Your task to perform on an android device: Open calendar and show me the first week of next month Image 0: 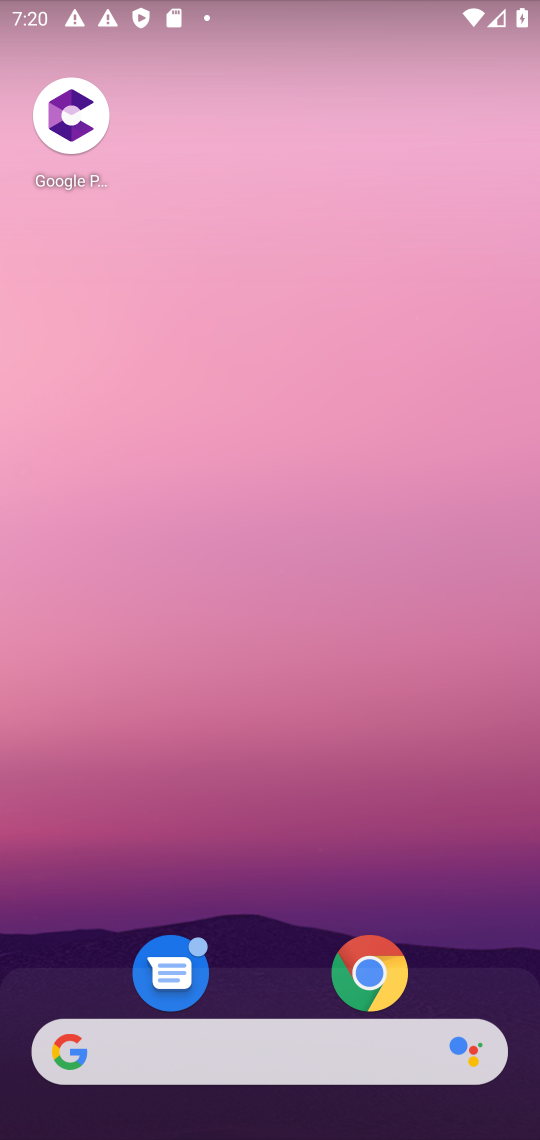
Step 0: drag from (356, 758) to (526, 210)
Your task to perform on an android device: Open calendar and show me the first week of next month Image 1: 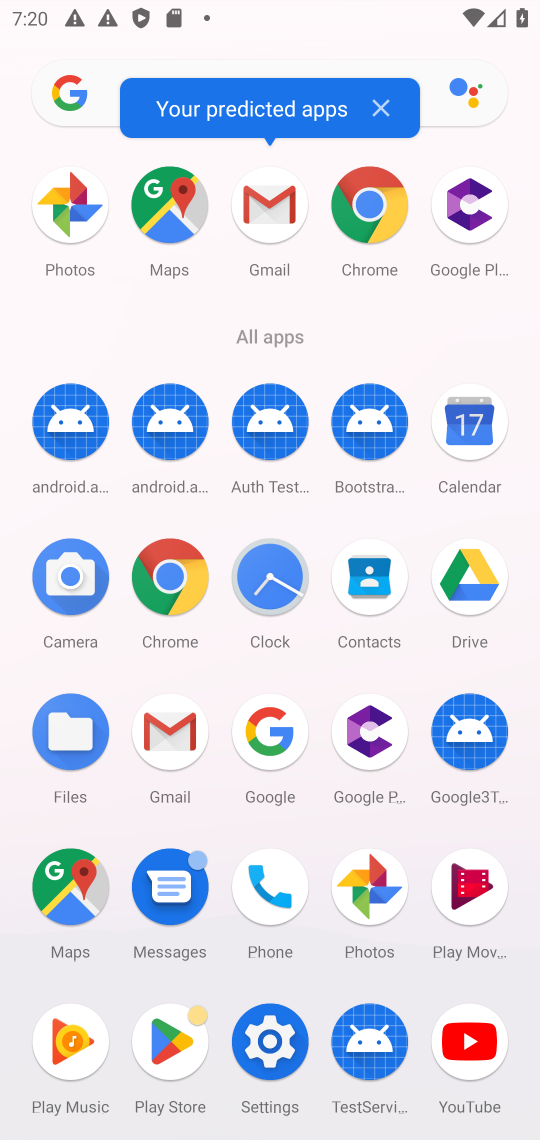
Step 1: click (472, 427)
Your task to perform on an android device: Open calendar and show me the first week of next month Image 2: 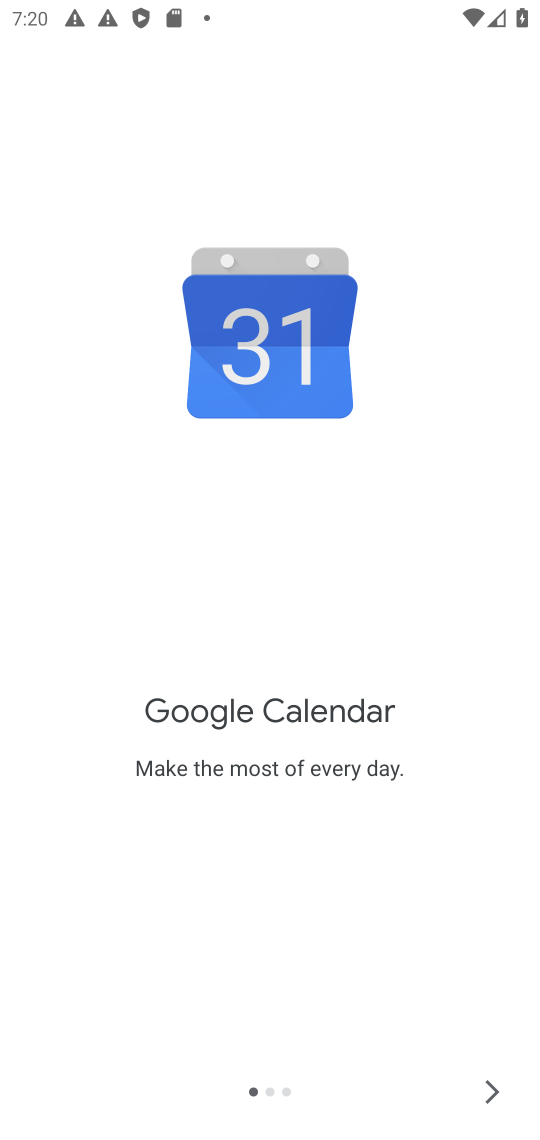
Step 2: click (481, 1084)
Your task to perform on an android device: Open calendar and show me the first week of next month Image 3: 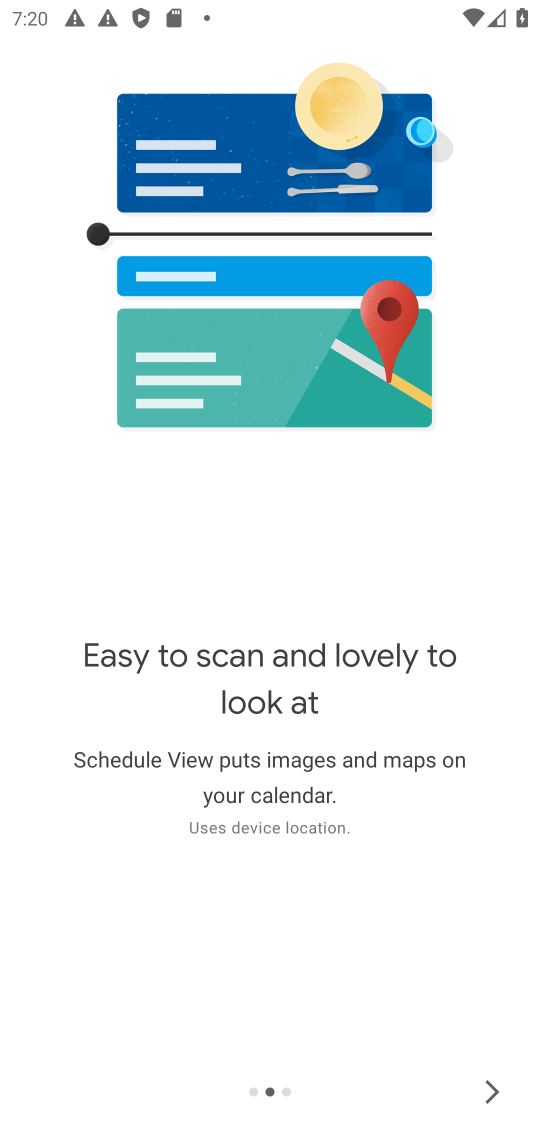
Step 3: click (481, 1084)
Your task to perform on an android device: Open calendar and show me the first week of next month Image 4: 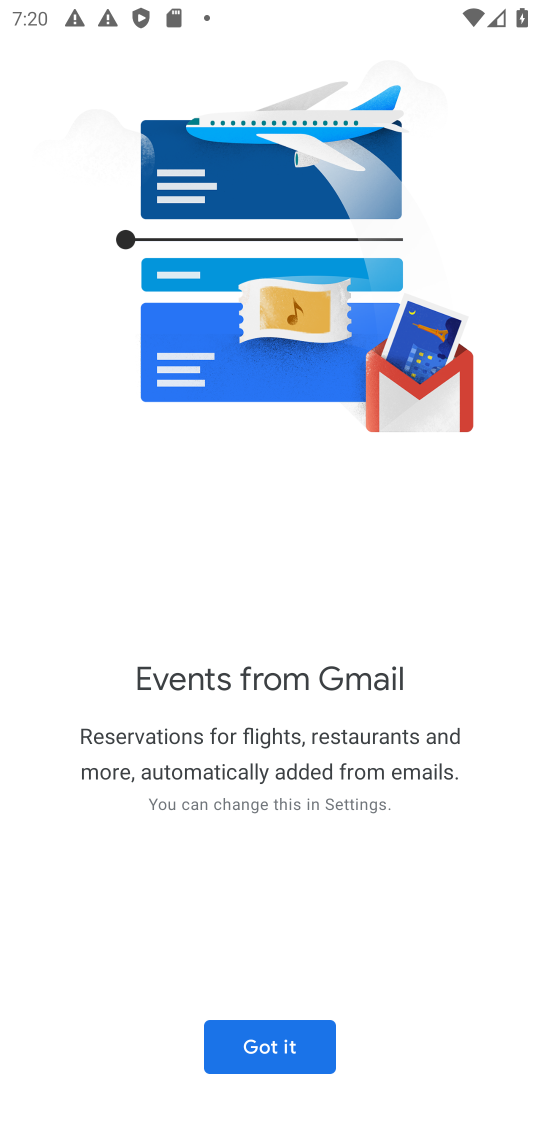
Step 4: click (268, 1053)
Your task to perform on an android device: Open calendar and show me the first week of next month Image 5: 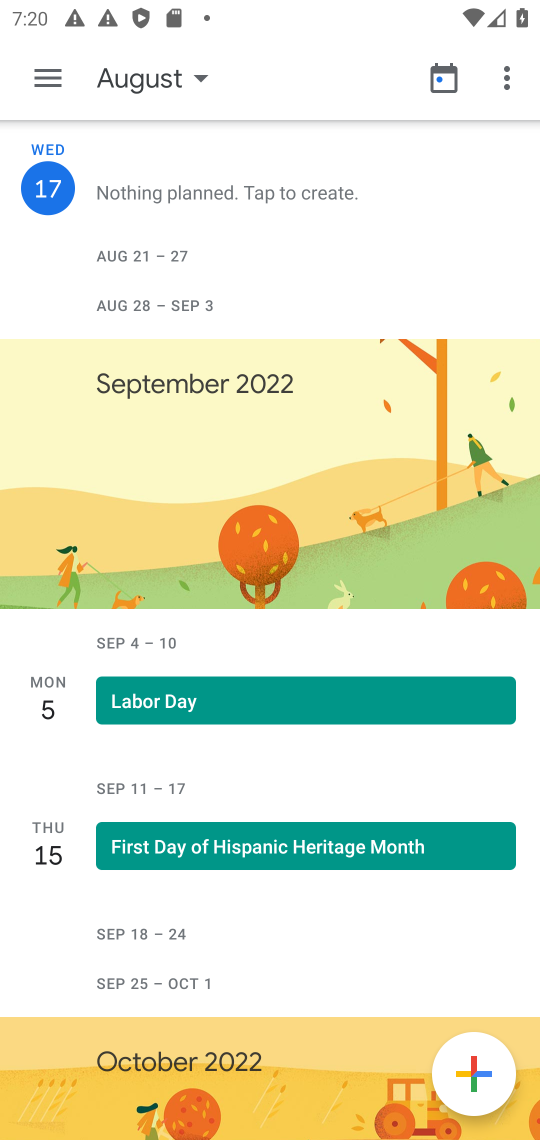
Step 5: drag from (182, 423) to (375, 108)
Your task to perform on an android device: Open calendar and show me the first week of next month Image 6: 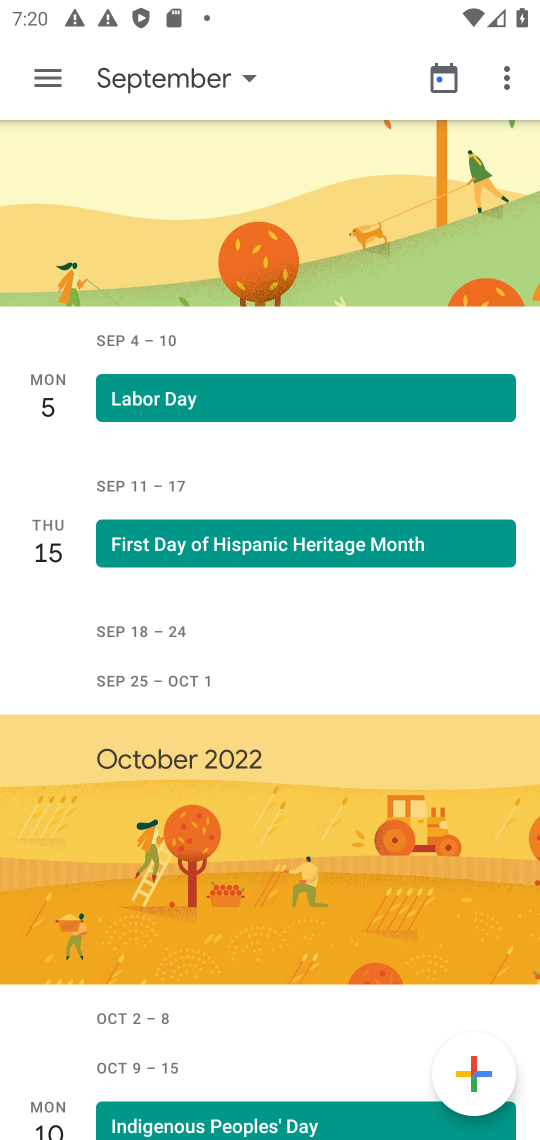
Step 6: click (207, 95)
Your task to perform on an android device: Open calendar and show me the first week of next month Image 7: 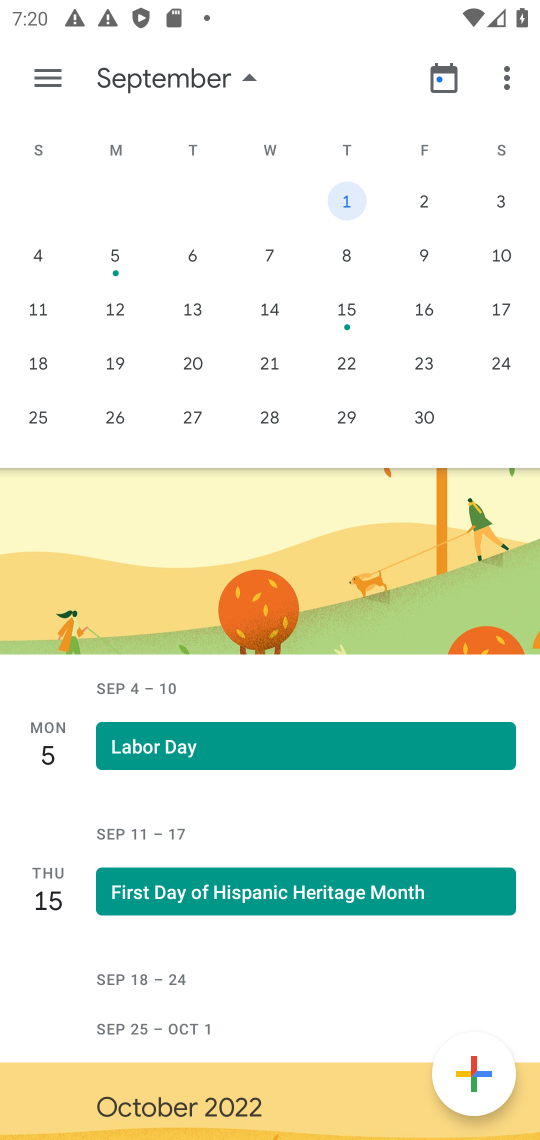
Step 7: click (347, 201)
Your task to perform on an android device: Open calendar and show me the first week of next month Image 8: 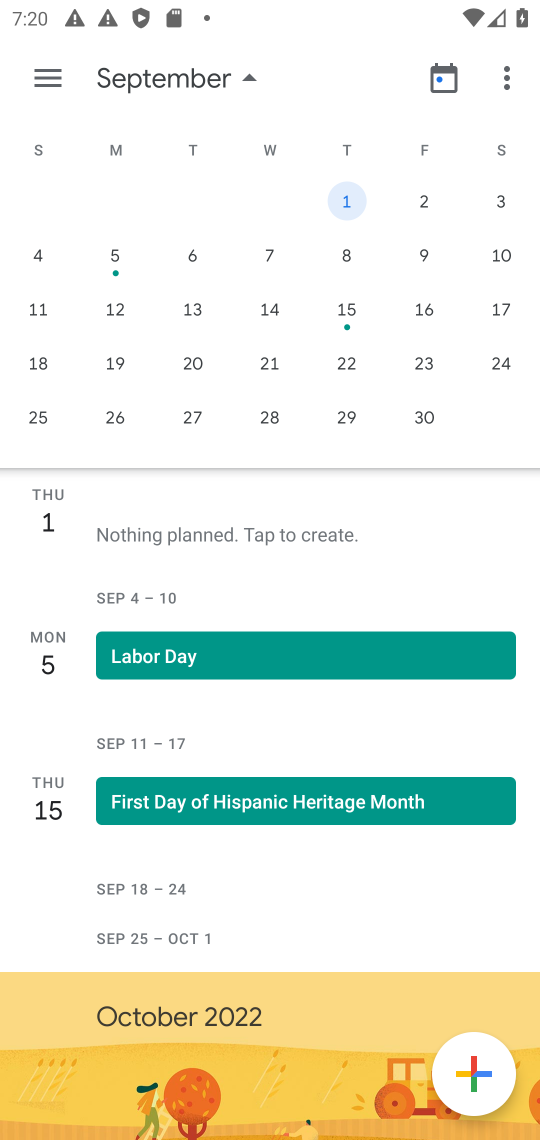
Step 8: click (51, 74)
Your task to perform on an android device: Open calendar and show me the first week of next month Image 9: 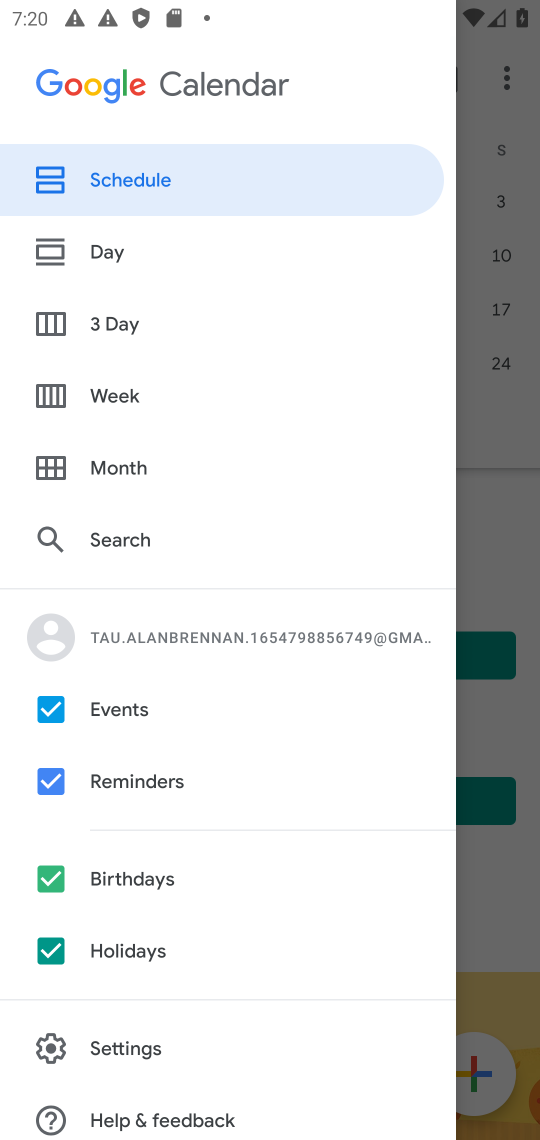
Step 9: click (126, 398)
Your task to perform on an android device: Open calendar and show me the first week of next month Image 10: 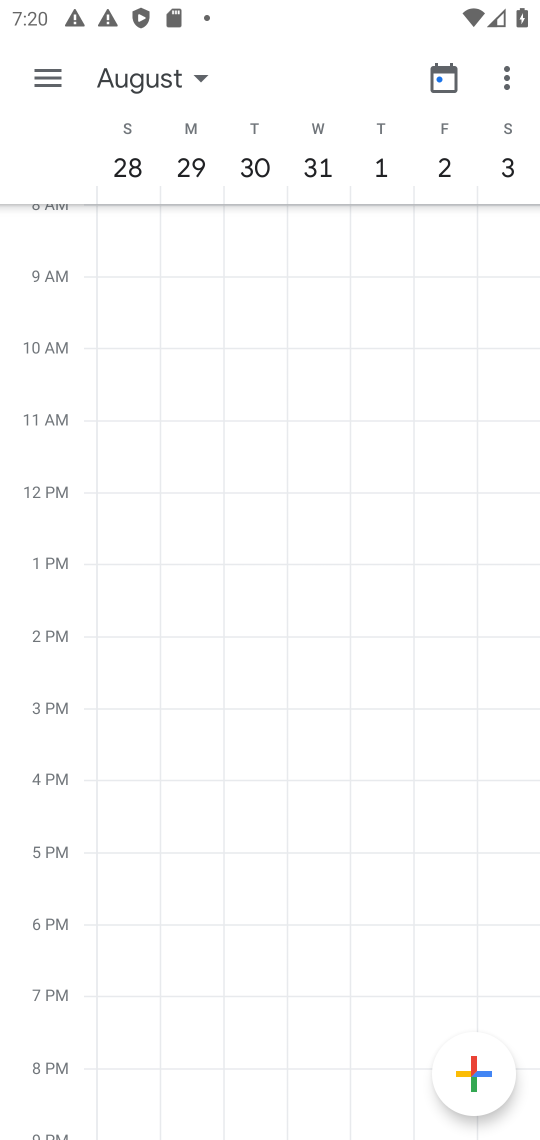
Step 10: task complete